Your task to perform on an android device: Open Android settings Image 0: 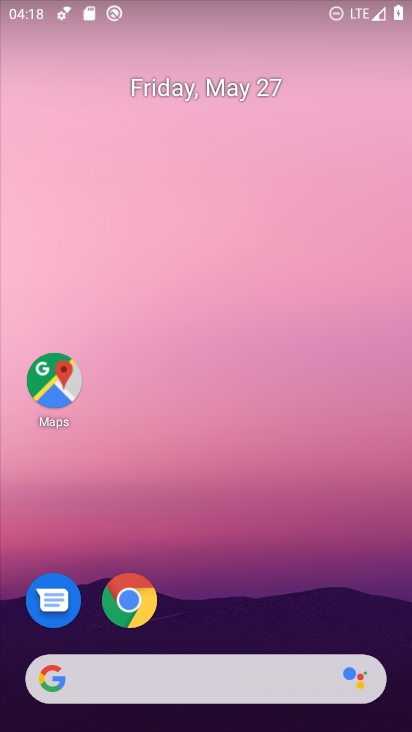
Step 0: drag from (211, 728) to (206, 176)
Your task to perform on an android device: Open Android settings Image 1: 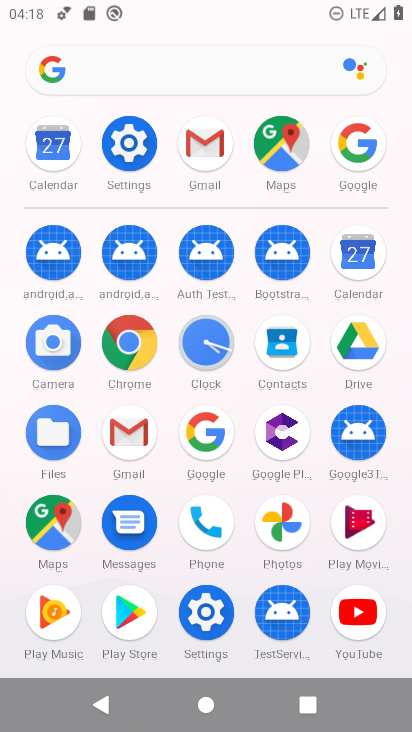
Step 1: click (131, 141)
Your task to perform on an android device: Open Android settings Image 2: 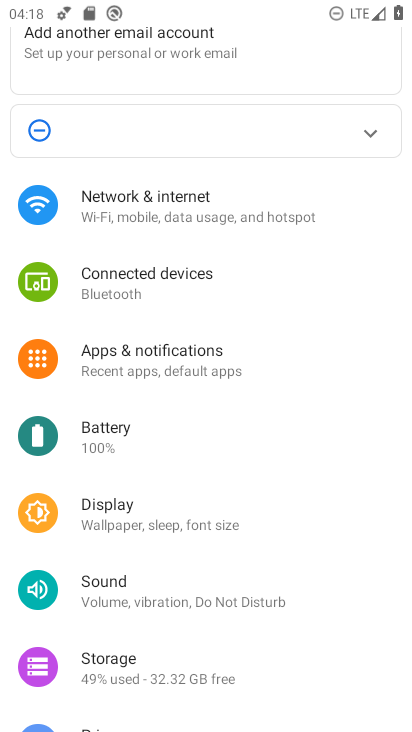
Step 2: task complete